Your task to perform on an android device: check android version Image 0: 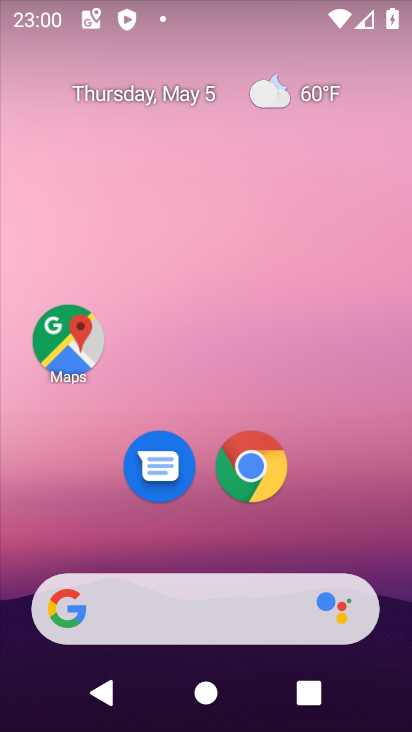
Step 0: drag from (193, 503) to (244, 146)
Your task to perform on an android device: check android version Image 1: 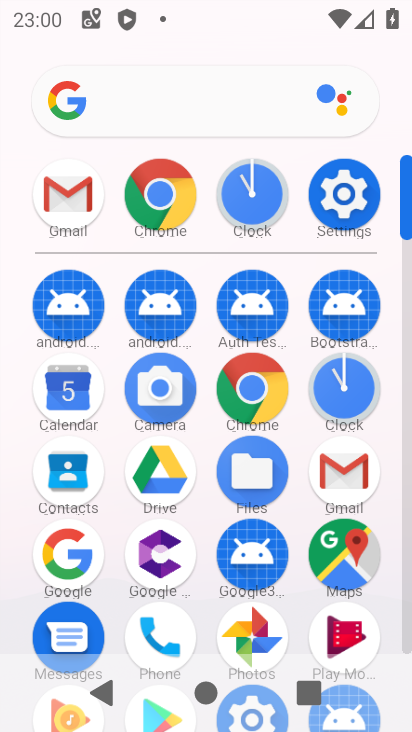
Step 1: click (346, 198)
Your task to perform on an android device: check android version Image 2: 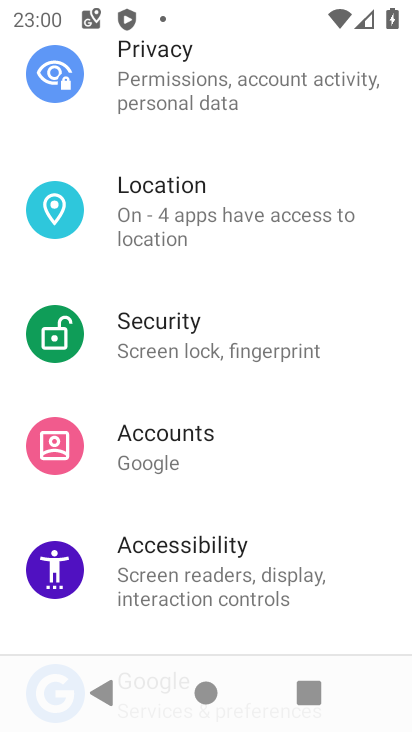
Step 2: drag from (212, 626) to (233, 174)
Your task to perform on an android device: check android version Image 3: 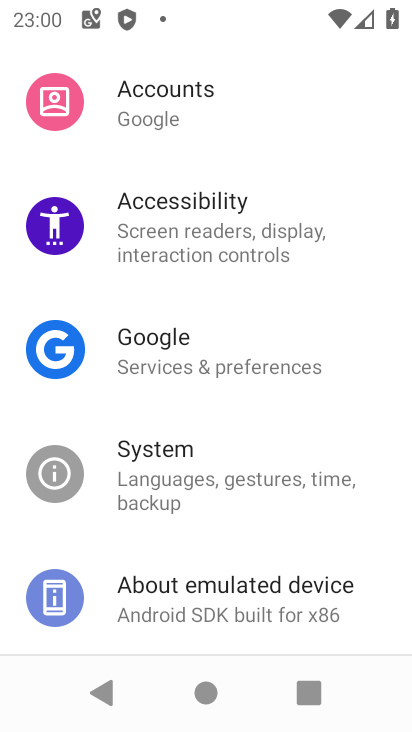
Step 3: drag from (252, 583) to (256, 210)
Your task to perform on an android device: check android version Image 4: 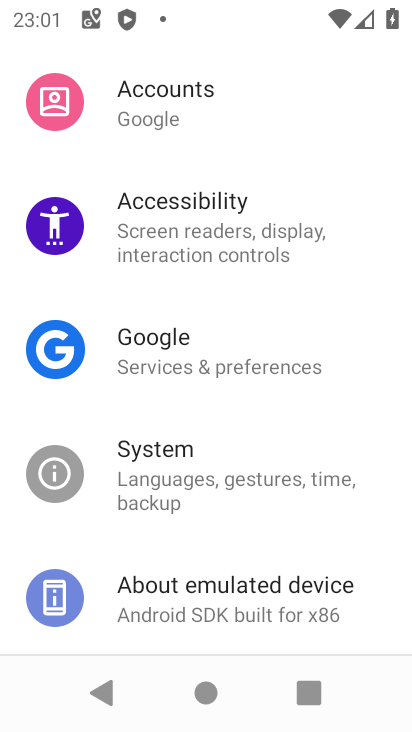
Step 4: click (199, 600)
Your task to perform on an android device: check android version Image 5: 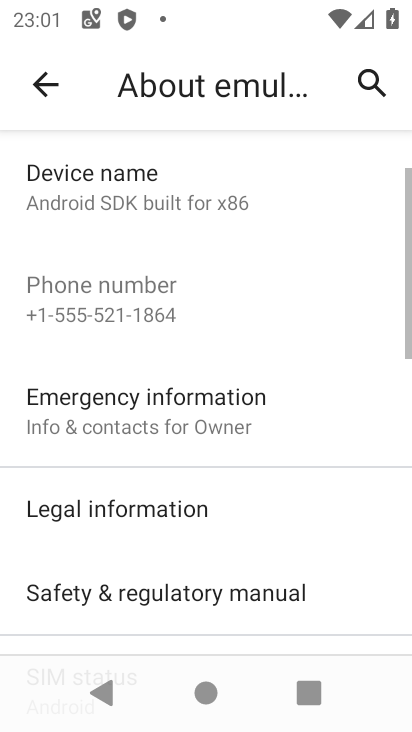
Step 5: drag from (201, 607) to (247, 237)
Your task to perform on an android device: check android version Image 6: 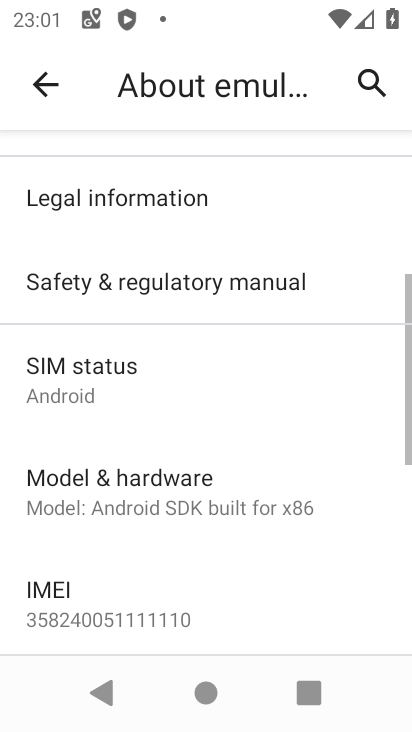
Step 6: drag from (225, 580) to (262, 250)
Your task to perform on an android device: check android version Image 7: 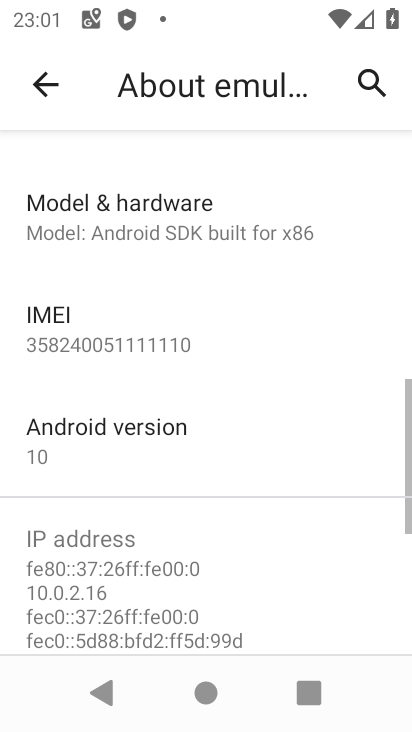
Step 7: click (118, 431)
Your task to perform on an android device: check android version Image 8: 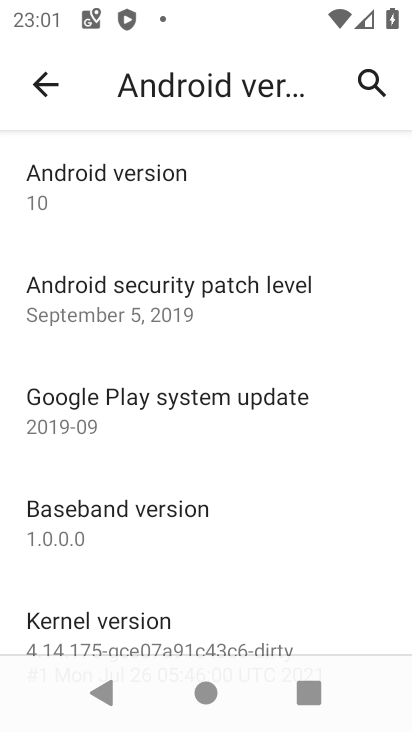
Step 8: task complete